Your task to perform on an android device: Go to Yahoo.com Image 0: 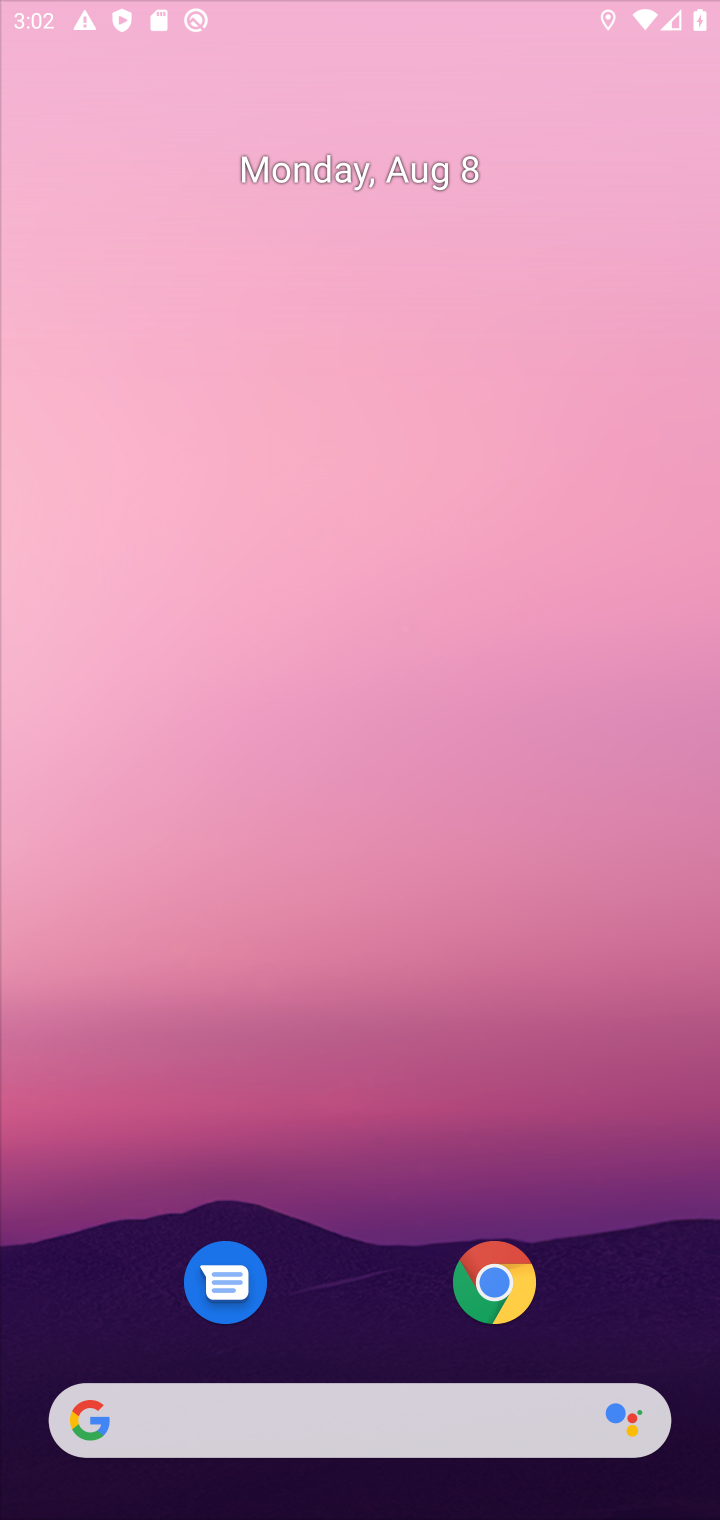
Step 0: press home button
Your task to perform on an android device: Go to Yahoo.com Image 1: 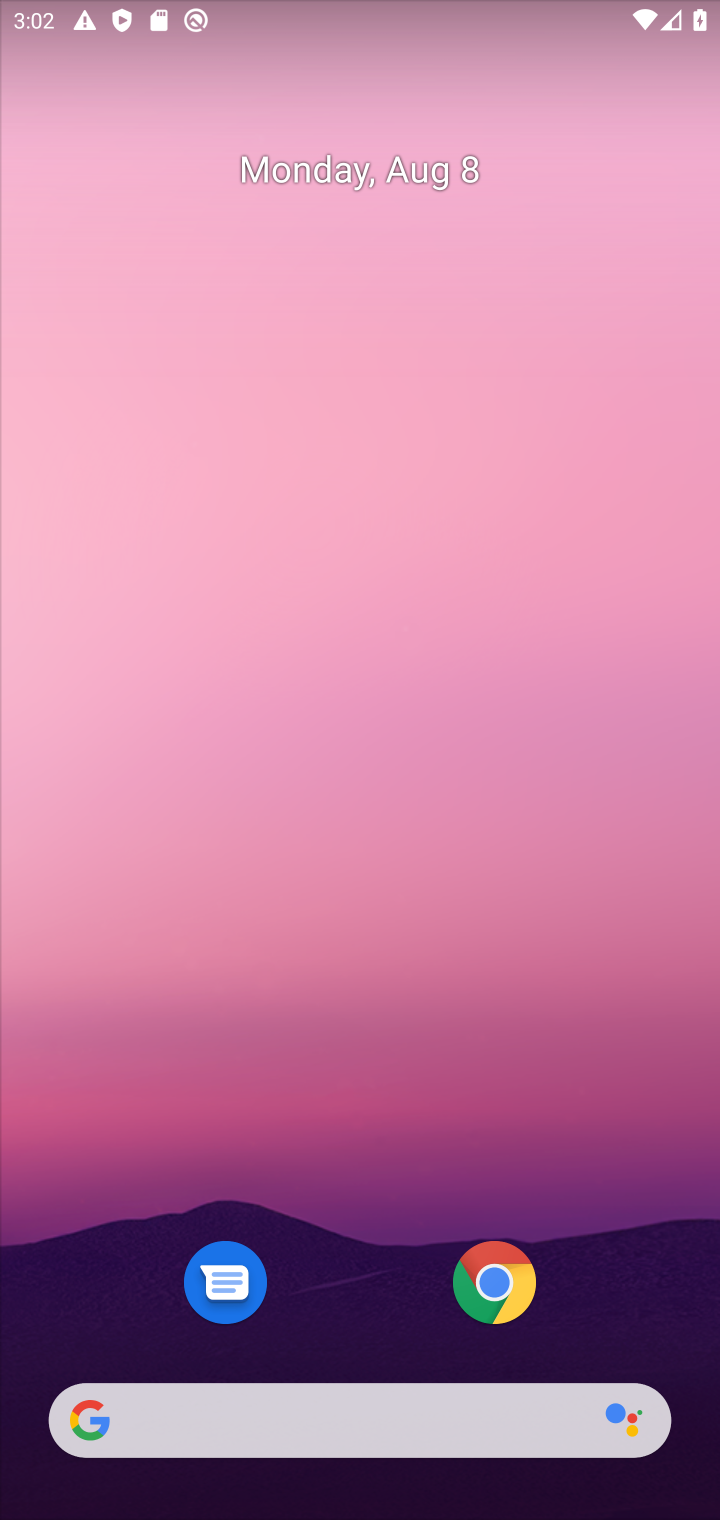
Step 1: press home button
Your task to perform on an android device: Go to Yahoo.com Image 2: 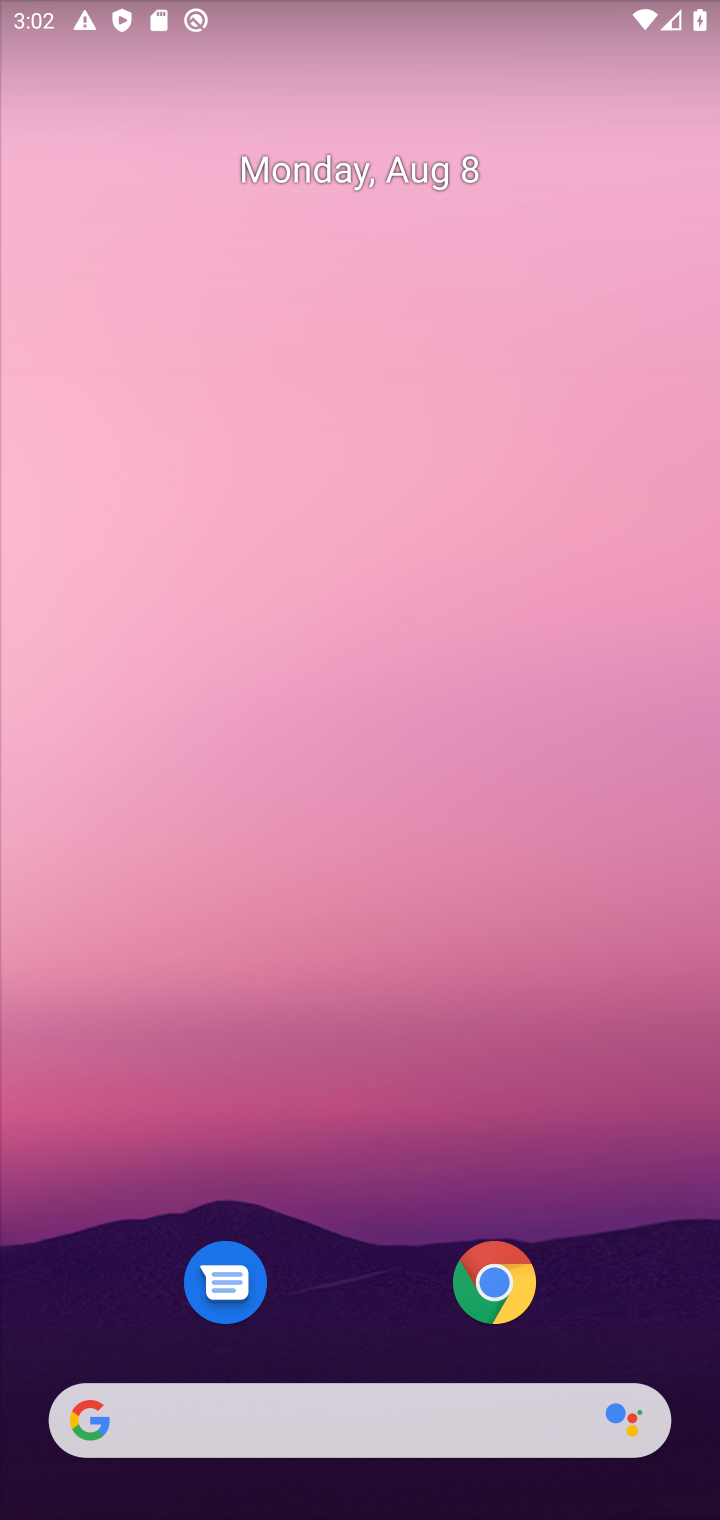
Step 2: drag from (341, 1261) to (439, 277)
Your task to perform on an android device: Go to Yahoo.com Image 3: 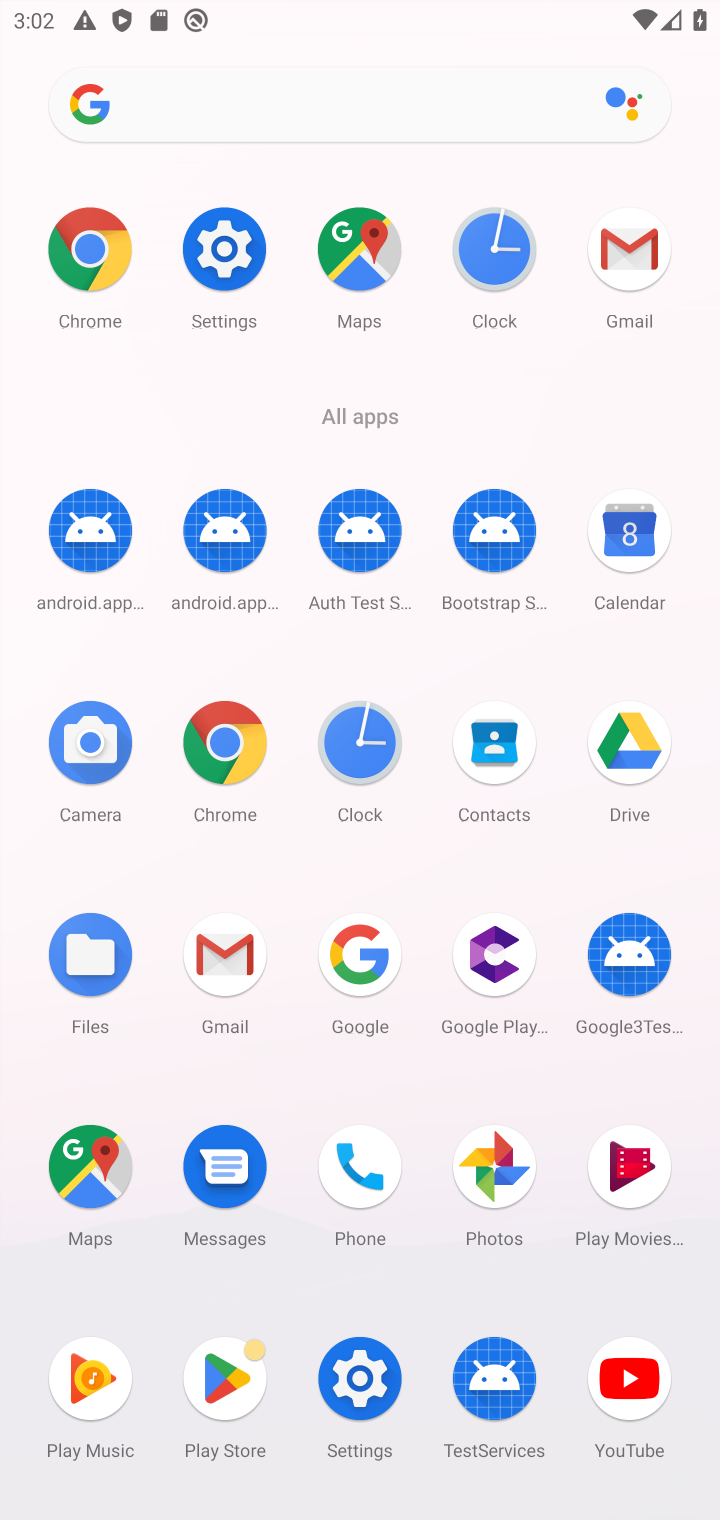
Step 3: click (234, 744)
Your task to perform on an android device: Go to Yahoo.com Image 4: 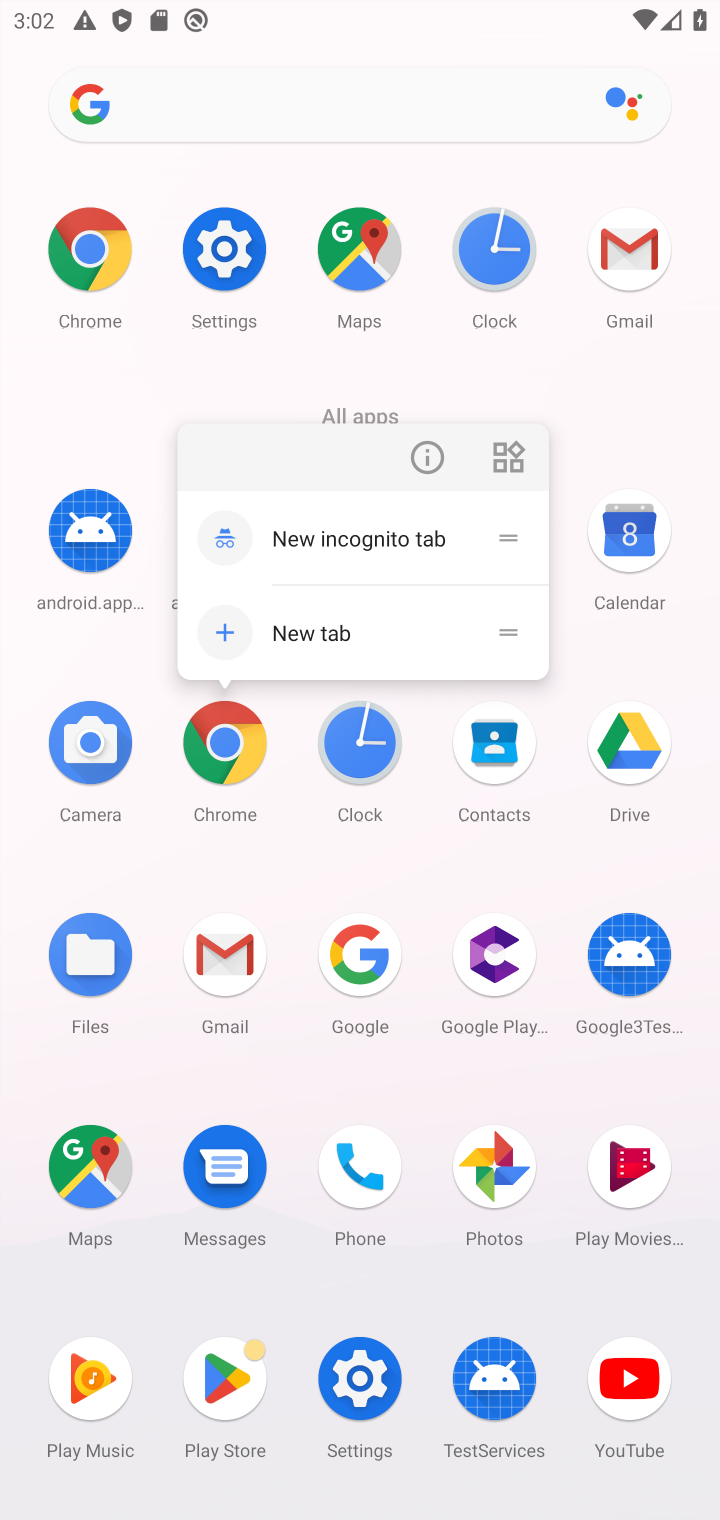
Step 4: click (229, 736)
Your task to perform on an android device: Go to Yahoo.com Image 5: 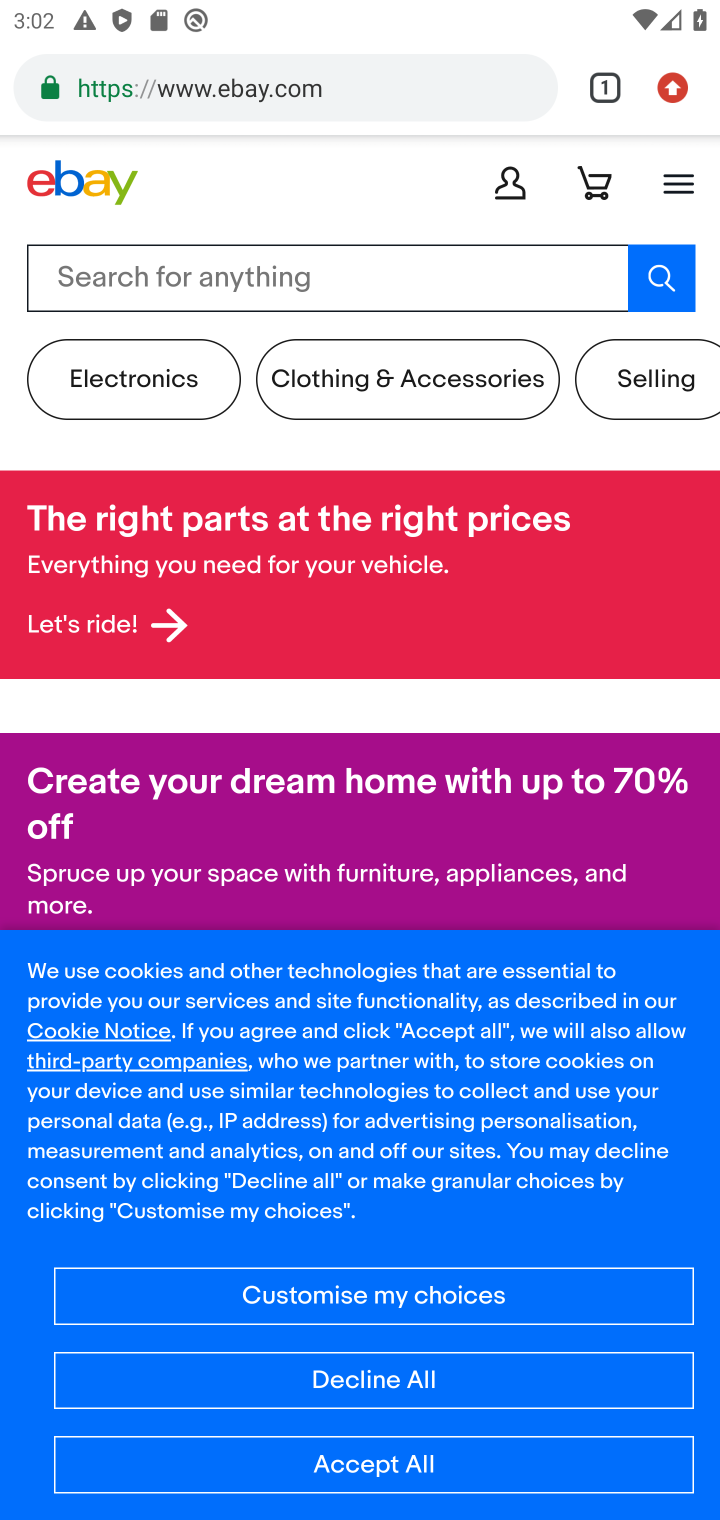
Step 5: click (424, 91)
Your task to perform on an android device: Go to Yahoo.com Image 6: 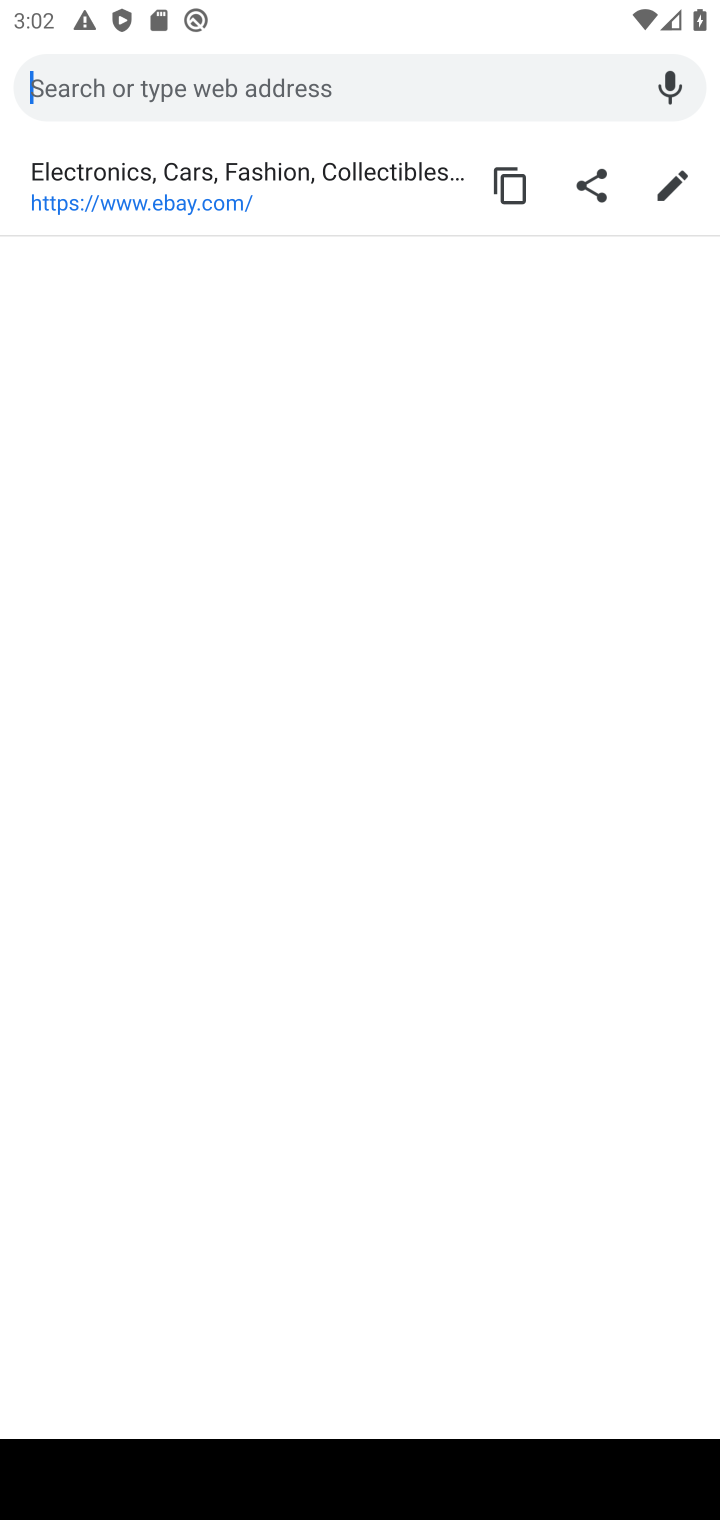
Step 6: type "yahoo.com"
Your task to perform on an android device: Go to Yahoo.com Image 7: 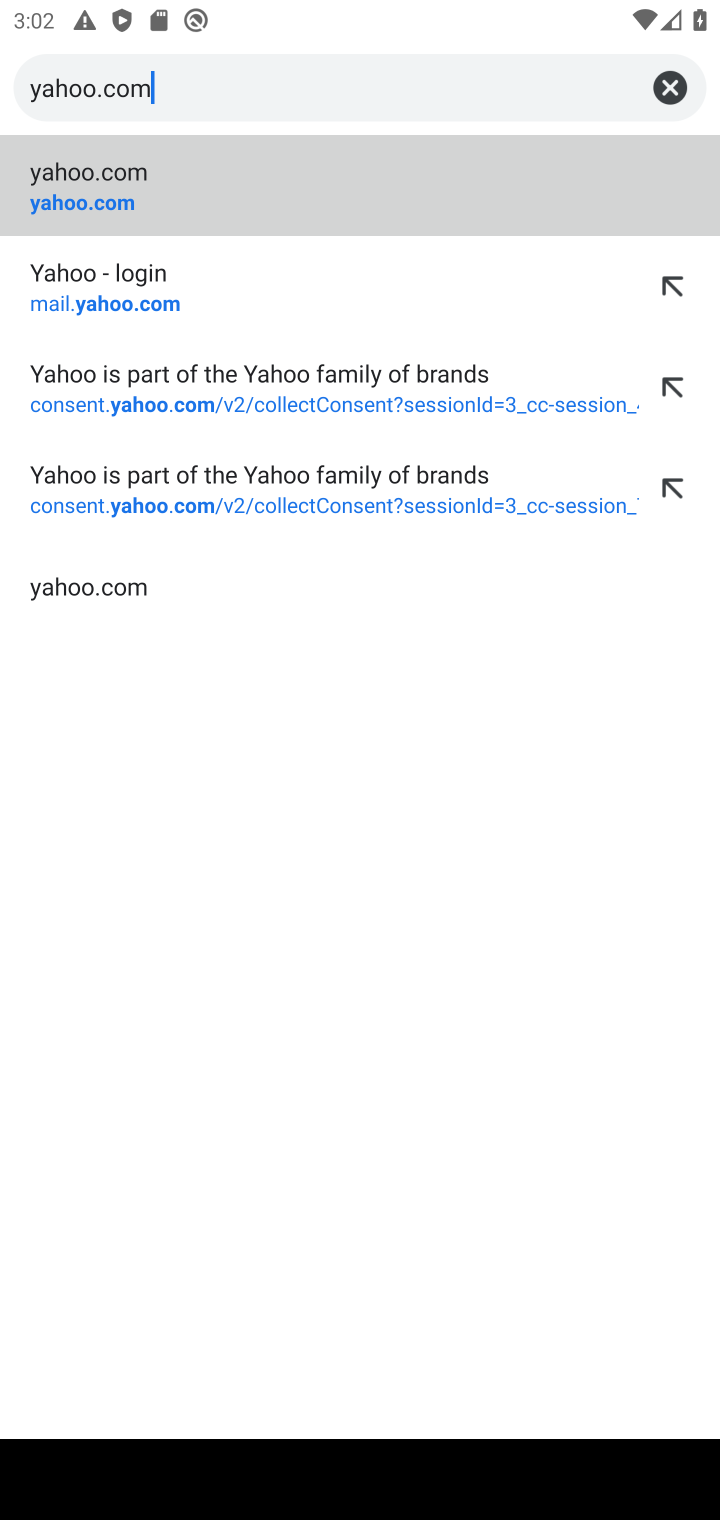
Step 7: click (142, 197)
Your task to perform on an android device: Go to Yahoo.com Image 8: 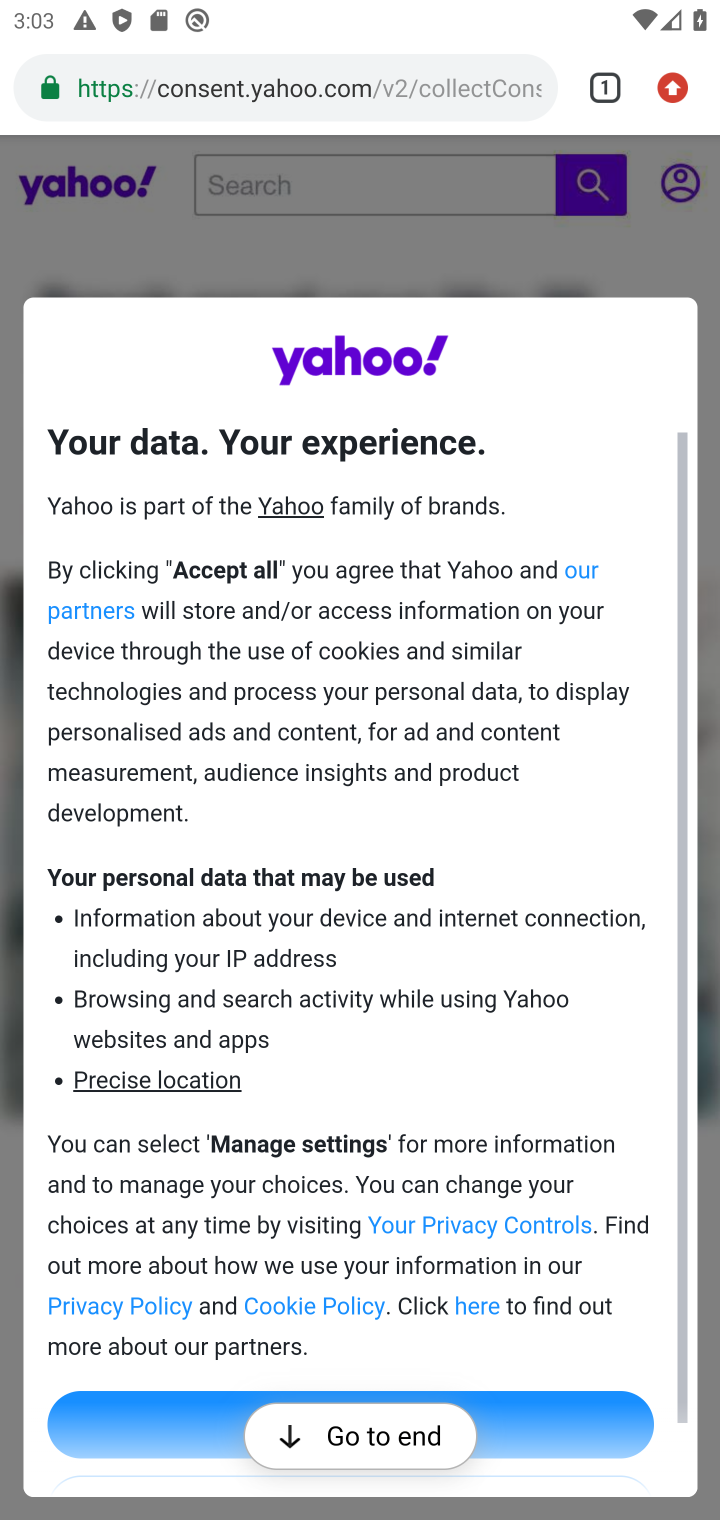
Step 8: task complete